Your task to perform on an android device: What's the weather going to be tomorrow? Image 0: 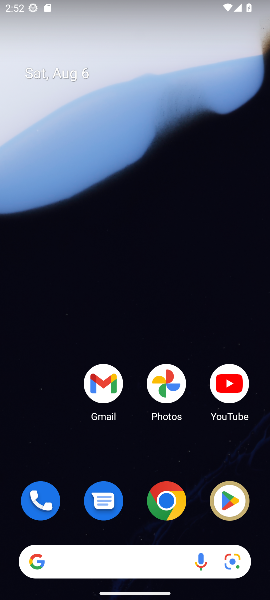
Step 0: drag from (129, 456) to (149, 58)
Your task to perform on an android device: What's the weather going to be tomorrow? Image 1: 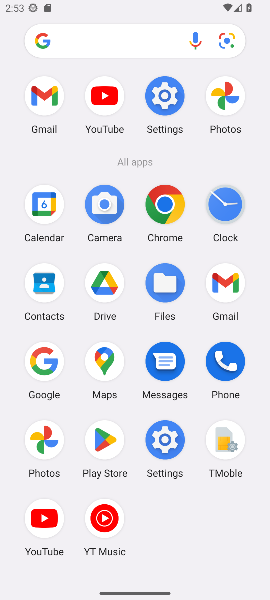
Step 1: click (160, 204)
Your task to perform on an android device: What's the weather going to be tomorrow? Image 2: 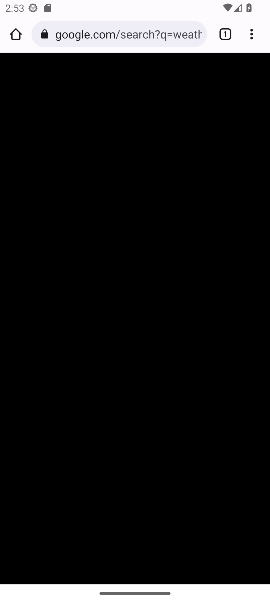
Step 2: click (171, 40)
Your task to perform on an android device: What's the weather going to be tomorrow? Image 3: 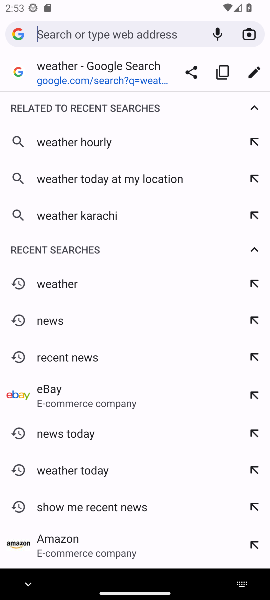
Step 3: type "weather"
Your task to perform on an android device: What's the weather going to be tomorrow? Image 4: 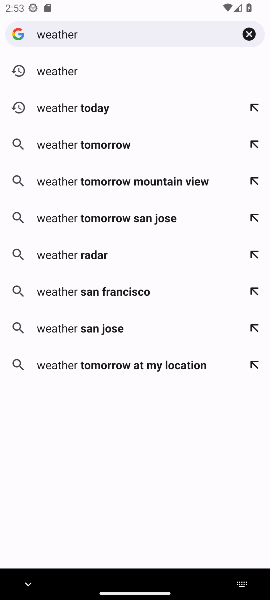
Step 4: click (74, 58)
Your task to perform on an android device: What's the weather going to be tomorrow? Image 5: 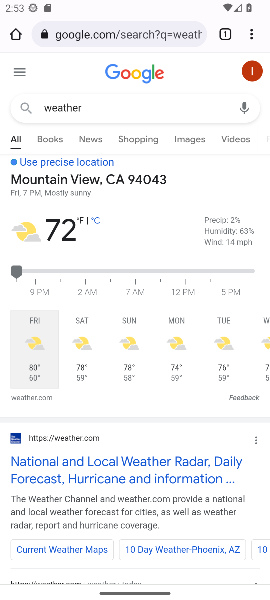
Step 5: task complete